Your task to perform on an android device: Search for "rayovac triple a" on amazon.com, select the first entry, and add it to the cart. Image 0: 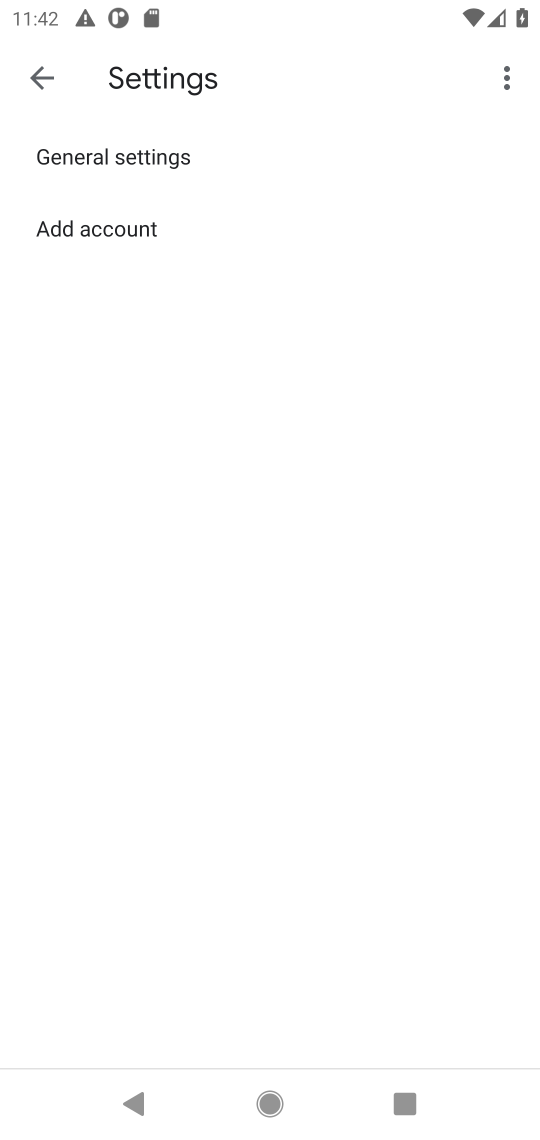
Step 0: press home button
Your task to perform on an android device: Search for "rayovac triple a" on amazon.com, select the first entry, and add it to the cart. Image 1: 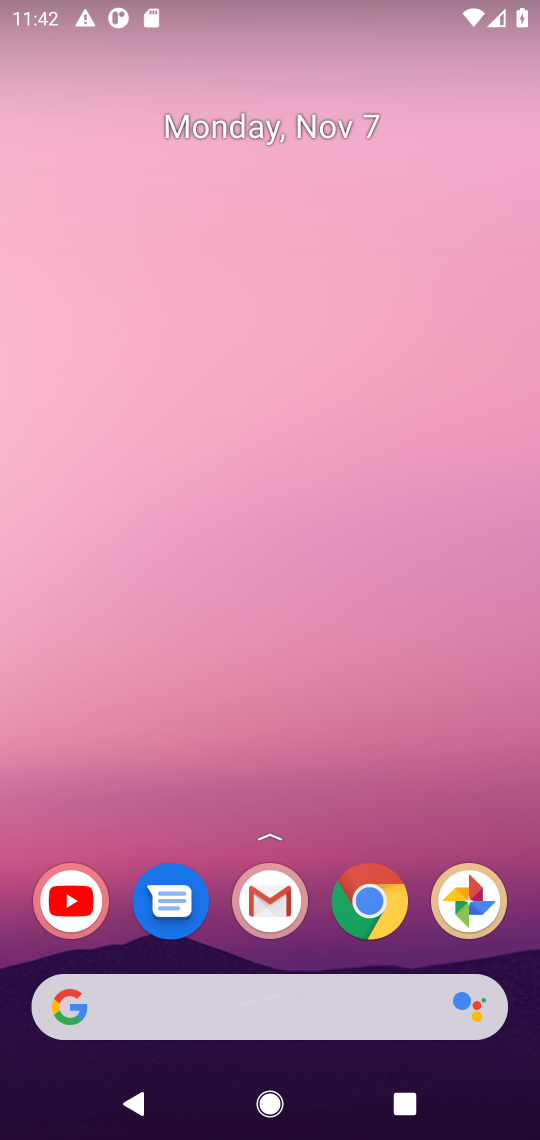
Step 1: click (344, 921)
Your task to perform on an android device: Search for "rayovac triple a" on amazon.com, select the first entry, and add it to the cart. Image 2: 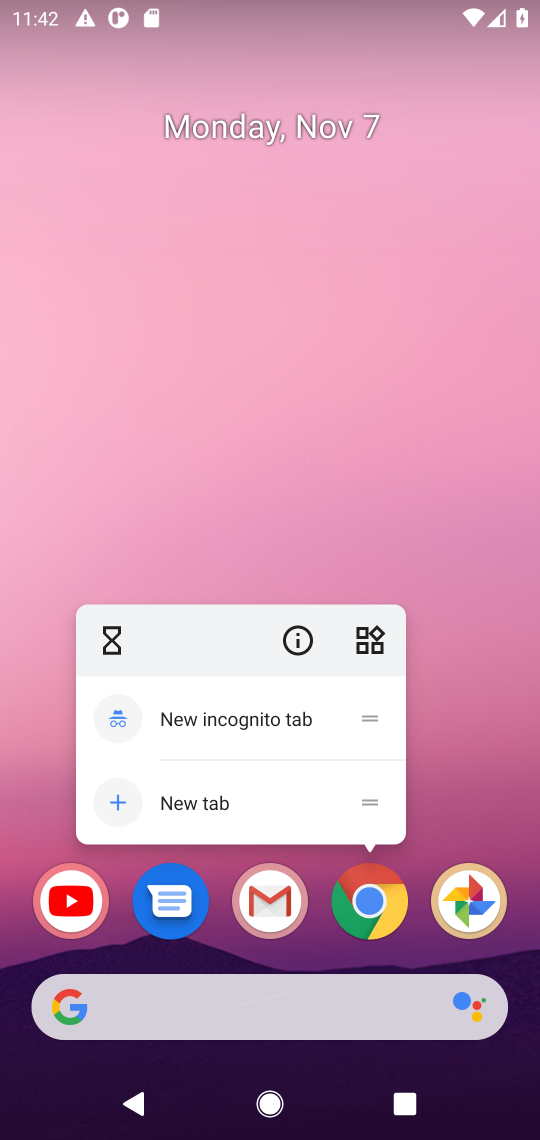
Step 2: click (355, 925)
Your task to perform on an android device: Search for "rayovac triple a" on amazon.com, select the first entry, and add it to the cart. Image 3: 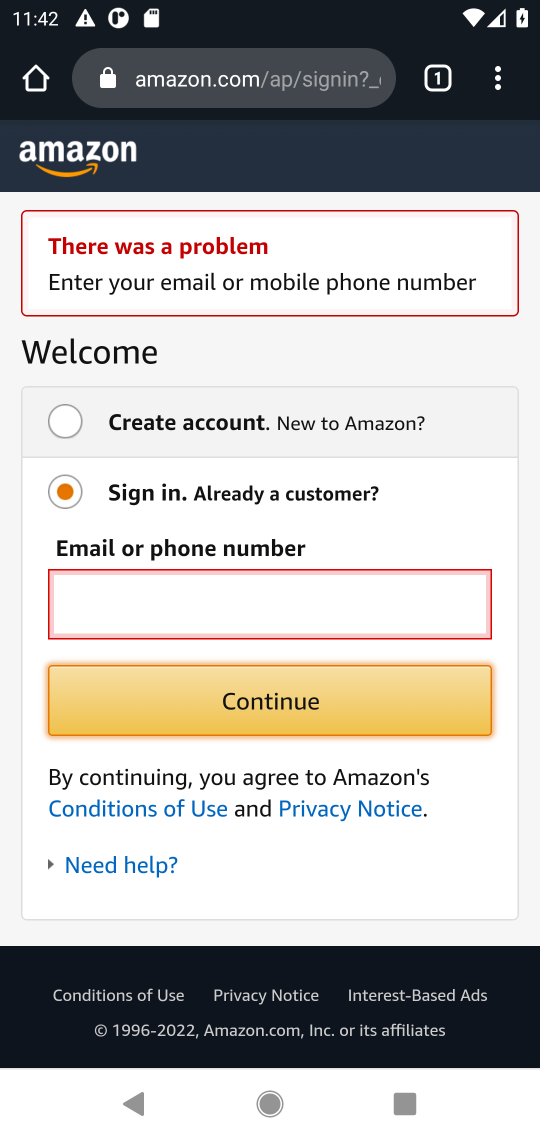
Step 3: click (93, 162)
Your task to perform on an android device: Search for "rayovac triple a" on amazon.com, select the first entry, and add it to the cart. Image 4: 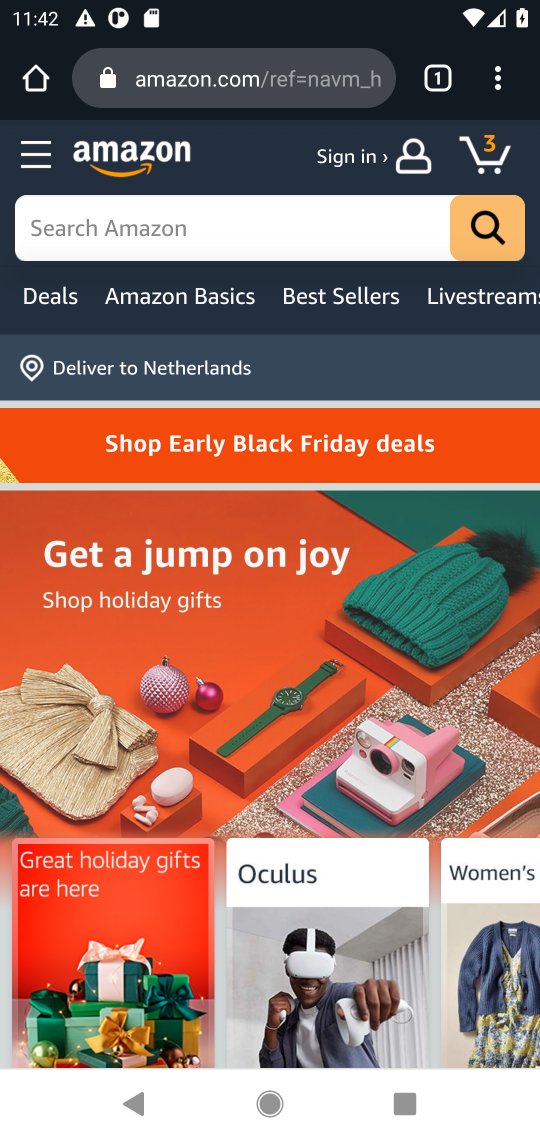
Step 4: click (156, 218)
Your task to perform on an android device: Search for "rayovac triple a" on amazon.com, select the first entry, and add it to the cart. Image 5: 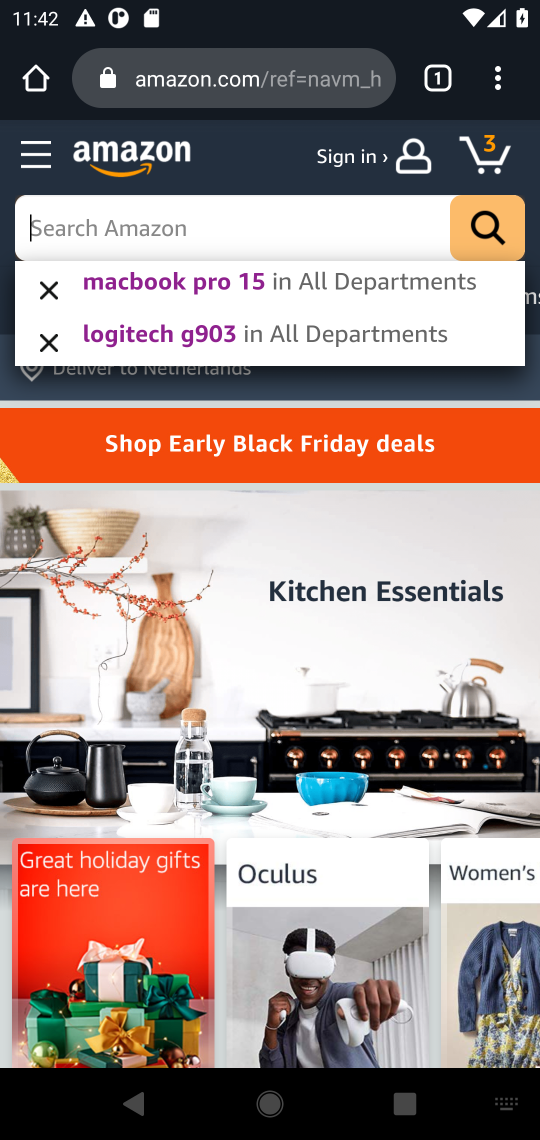
Step 5: type "rayovac aaa"
Your task to perform on an android device: Search for "rayovac triple a" on amazon.com, select the first entry, and add it to the cart. Image 6: 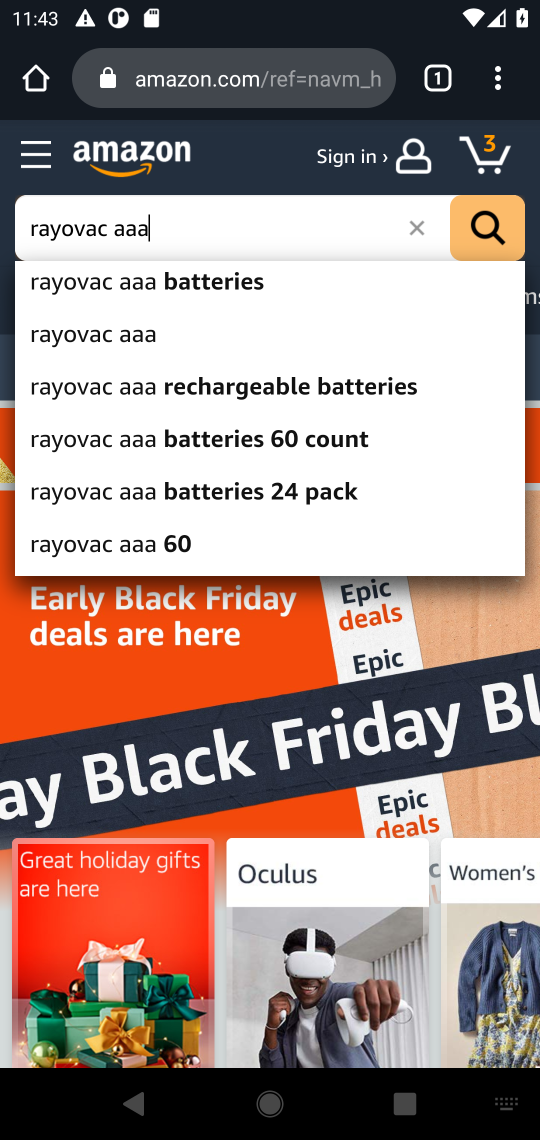
Step 6: press enter
Your task to perform on an android device: Search for "rayovac triple a" on amazon.com, select the first entry, and add it to the cart. Image 7: 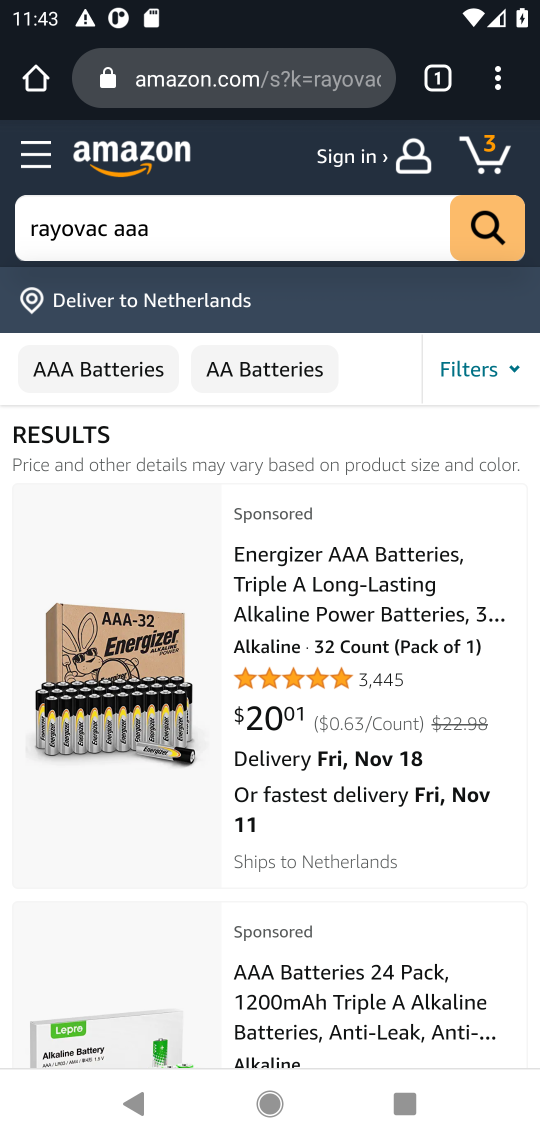
Step 7: click (165, 665)
Your task to perform on an android device: Search for "rayovac triple a" on amazon.com, select the first entry, and add it to the cart. Image 8: 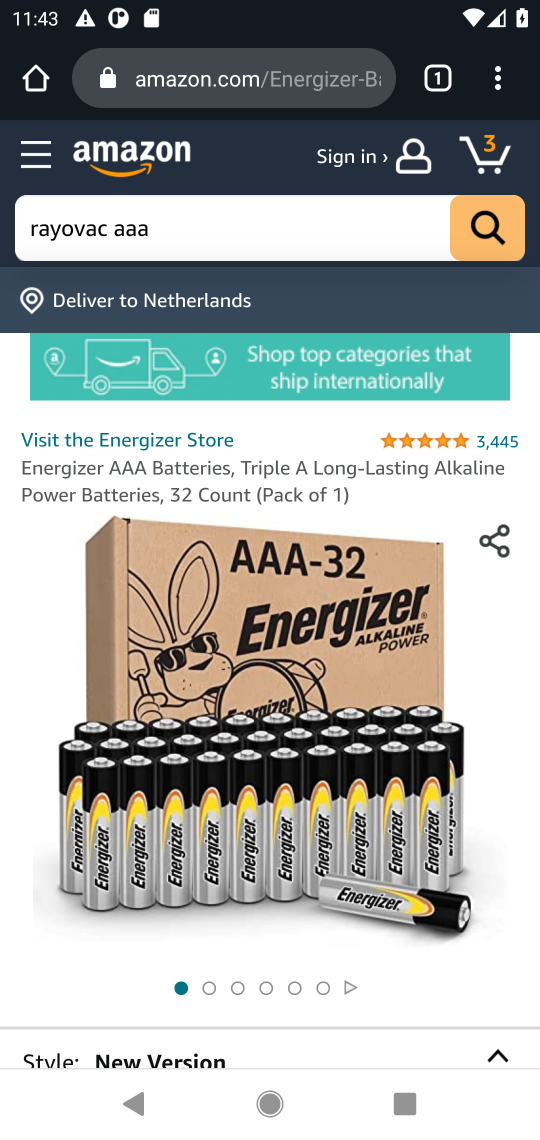
Step 8: drag from (275, 814) to (225, 599)
Your task to perform on an android device: Search for "rayovac triple a" on amazon.com, select the first entry, and add it to the cart. Image 9: 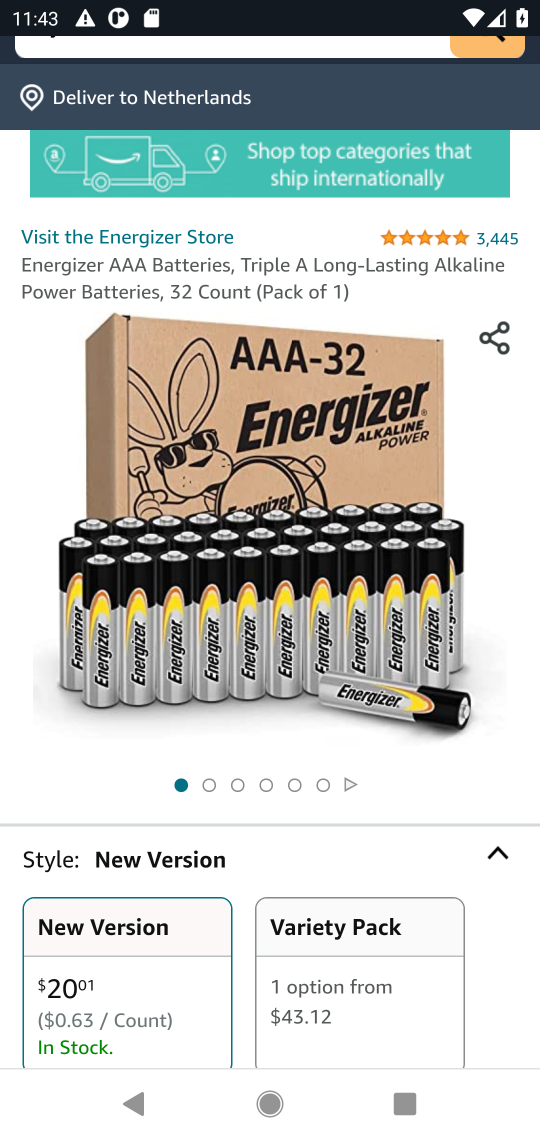
Step 9: drag from (287, 957) to (274, 411)
Your task to perform on an android device: Search for "rayovac triple a" on amazon.com, select the first entry, and add it to the cart. Image 10: 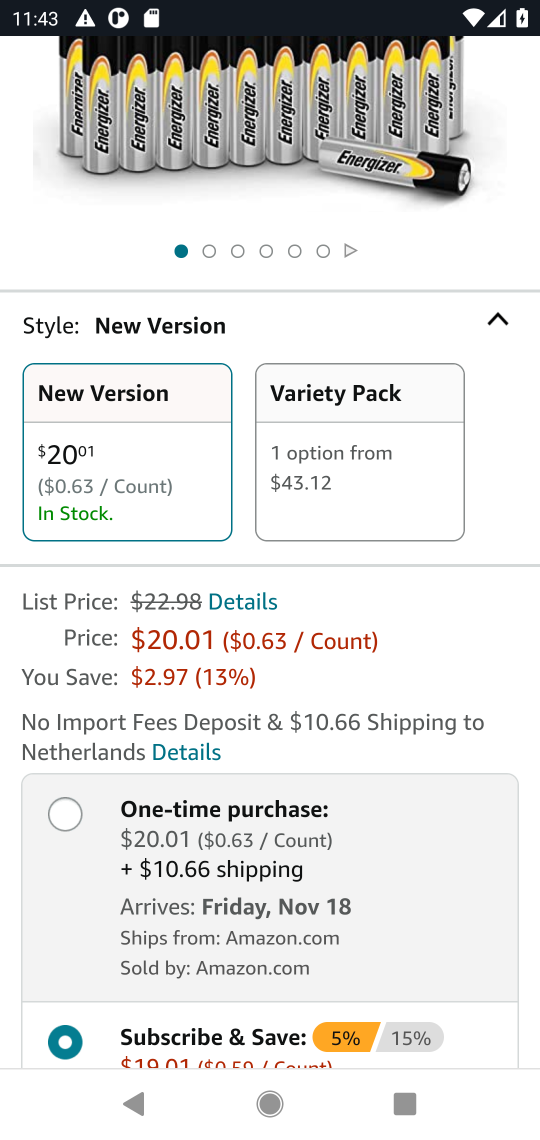
Step 10: drag from (364, 987) to (291, 339)
Your task to perform on an android device: Search for "rayovac triple a" on amazon.com, select the first entry, and add it to the cart. Image 11: 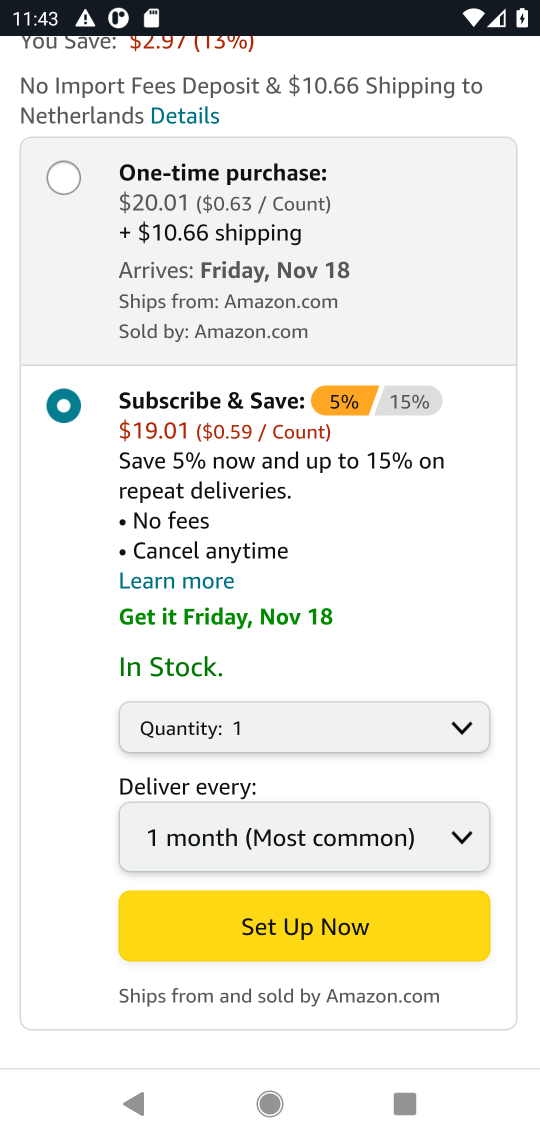
Step 11: drag from (367, 951) to (299, 879)
Your task to perform on an android device: Search for "rayovac triple a" on amazon.com, select the first entry, and add it to the cart. Image 12: 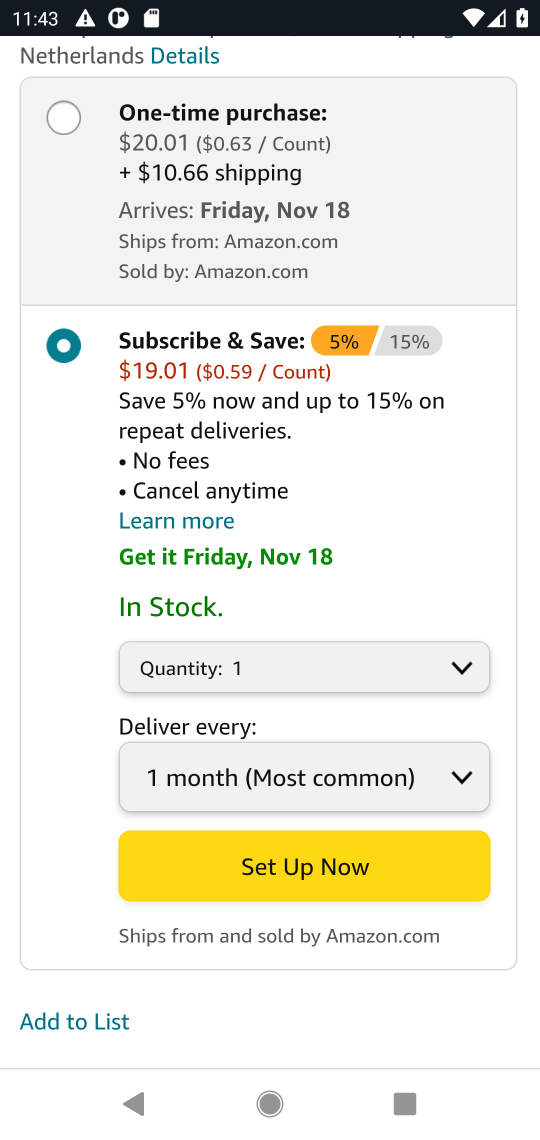
Step 12: click (60, 125)
Your task to perform on an android device: Search for "rayovac triple a" on amazon.com, select the first entry, and add it to the cart. Image 13: 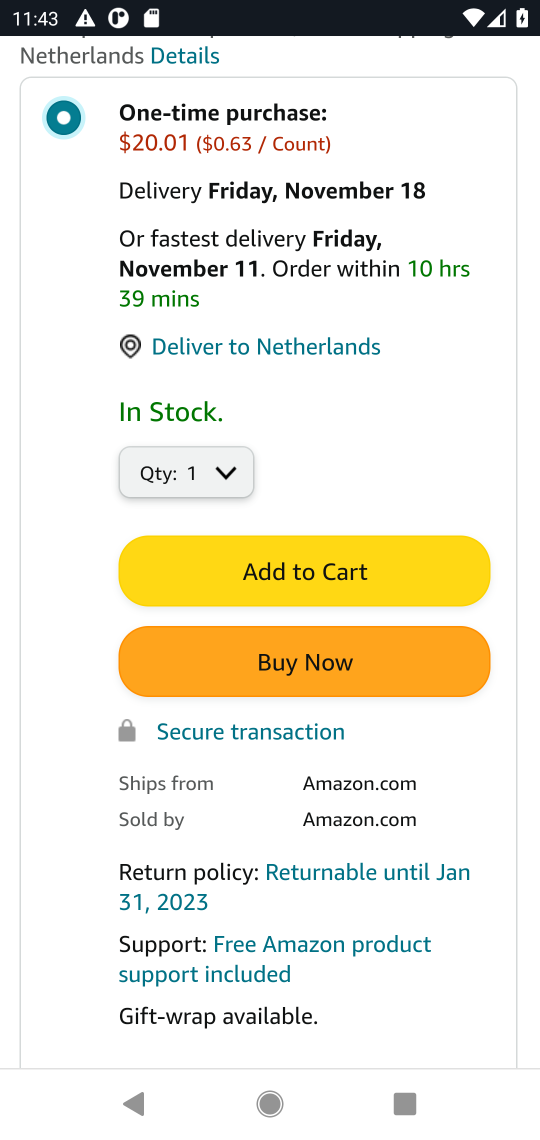
Step 13: click (319, 584)
Your task to perform on an android device: Search for "rayovac triple a" on amazon.com, select the first entry, and add it to the cart. Image 14: 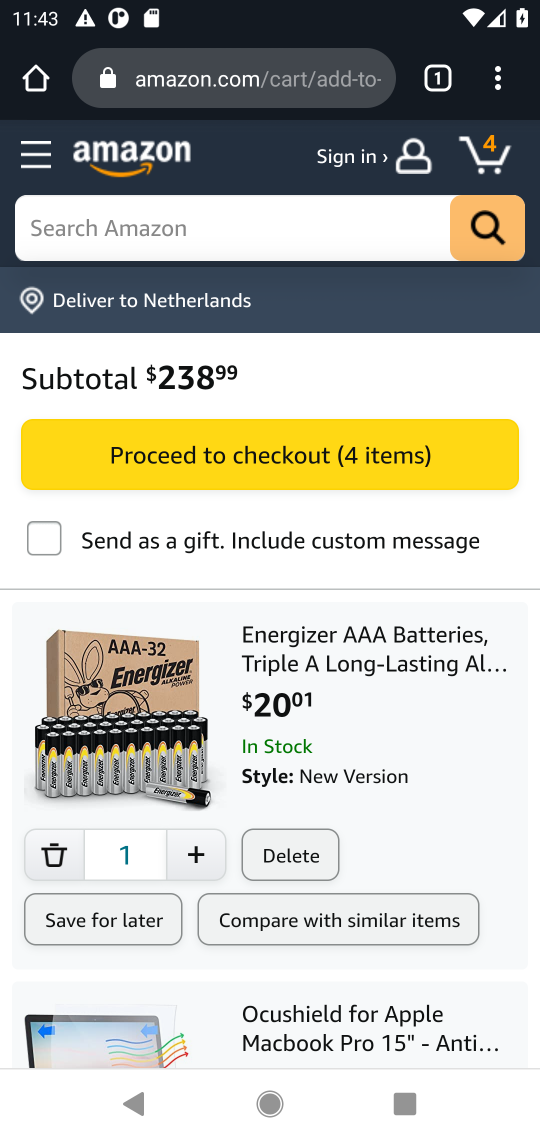
Step 14: task complete